Your task to perform on an android device: turn off translation in the chrome app Image 0: 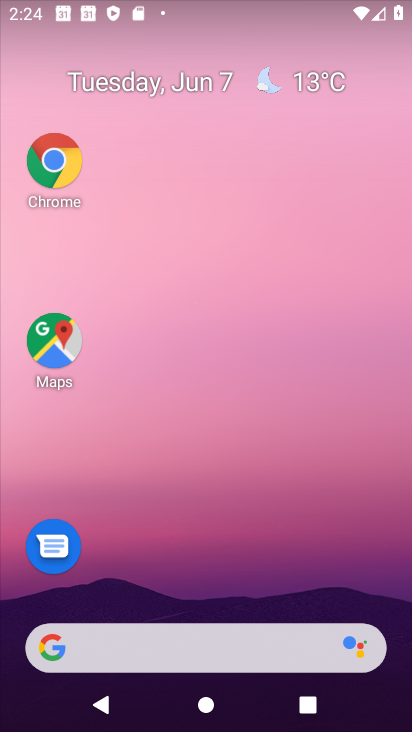
Step 0: drag from (408, 558) to (386, 2)
Your task to perform on an android device: turn off translation in the chrome app Image 1: 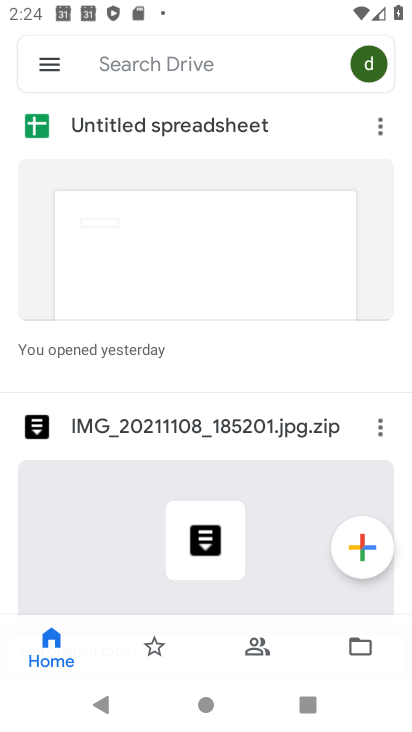
Step 1: drag from (164, 481) to (280, 2)
Your task to perform on an android device: turn off translation in the chrome app Image 2: 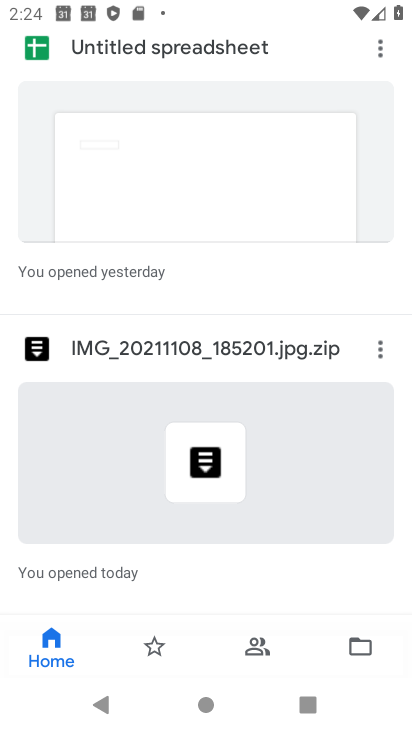
Step 2: drag from (232, 282) to (381, 494)
Your task to perform on an android device: turn off translation in the chrome app Image 3: 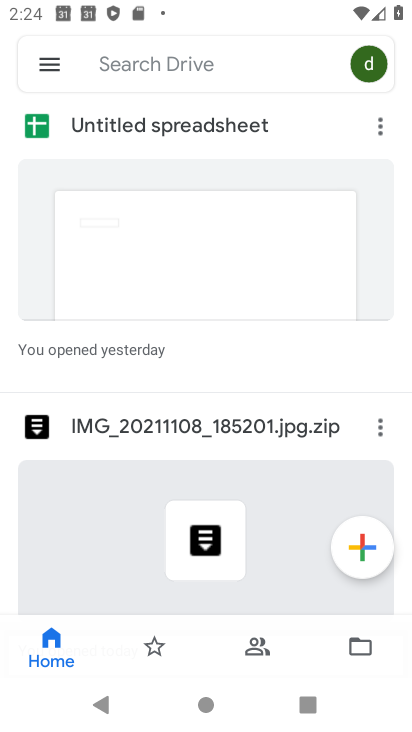
Step 3: press home button
Your task to perform on an android device: turn off translation in the chrome app Image 4: 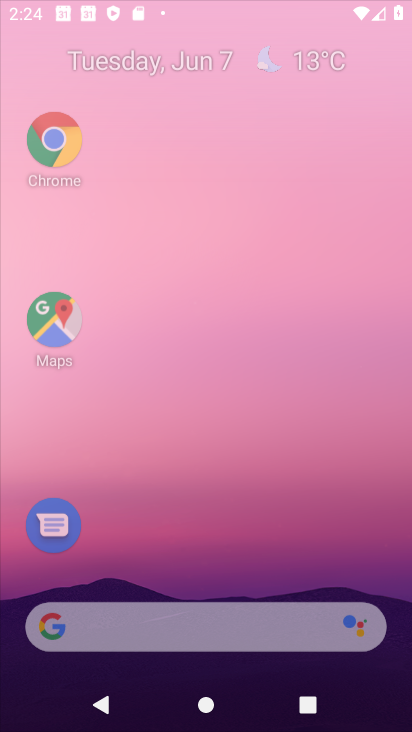
Step 4: drag from (240, 420) to (285, 36)
Your task to perform on an android device: turn off translation in the chrome app Image 5: 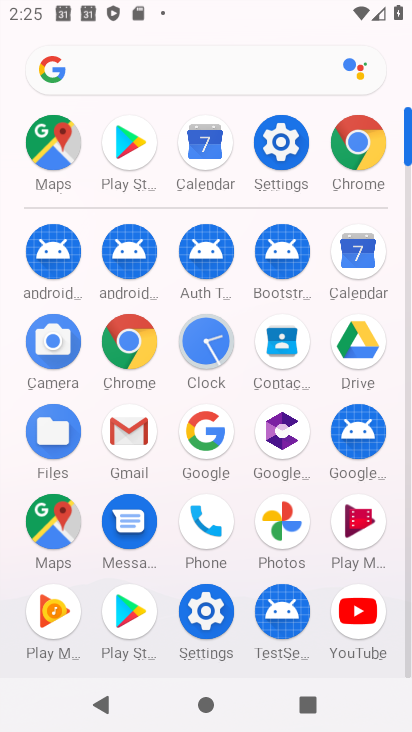
Step 5: click (118, 340)
Your task to perform on an android device: turn off translation in the chrome app Image 6: 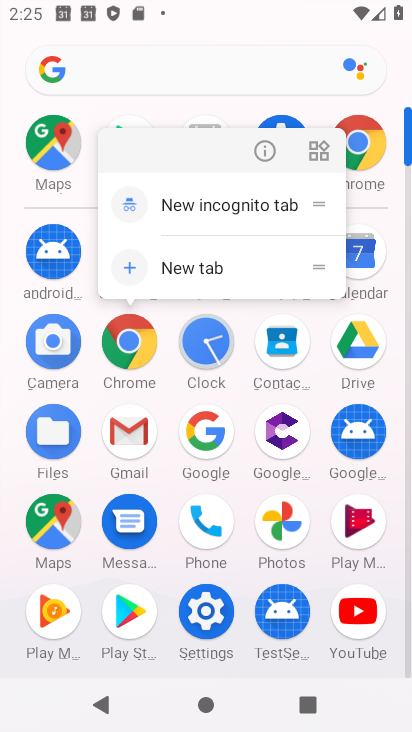
Step 6: click (264, 149)
Your task to perform on an android device: turn off translation in the chrome app Image 7: 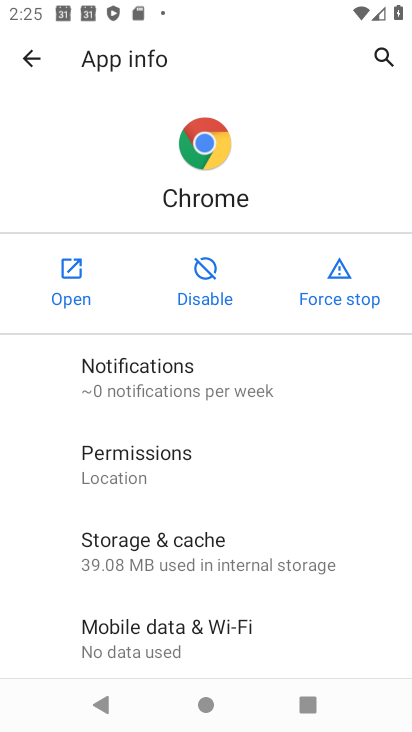
Step 7: click (64, 282)
Your task to perform on an android device: turn off translation in the chrome app Image 8: 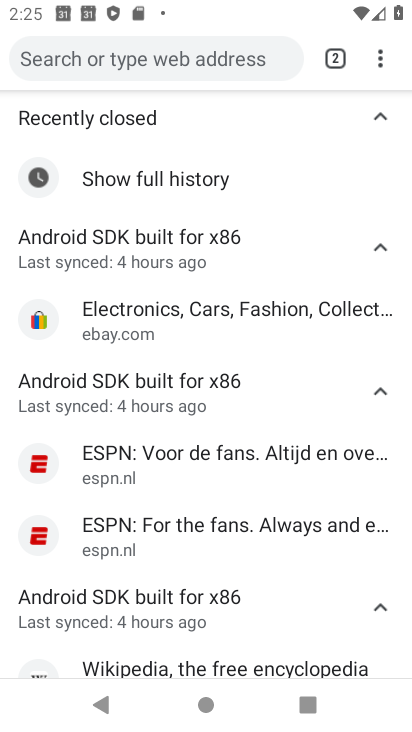
Step 8: drag from (157, 527) to (158, 96)
Your task to perform on an android device: turn off translation in the chrome app Image 9: 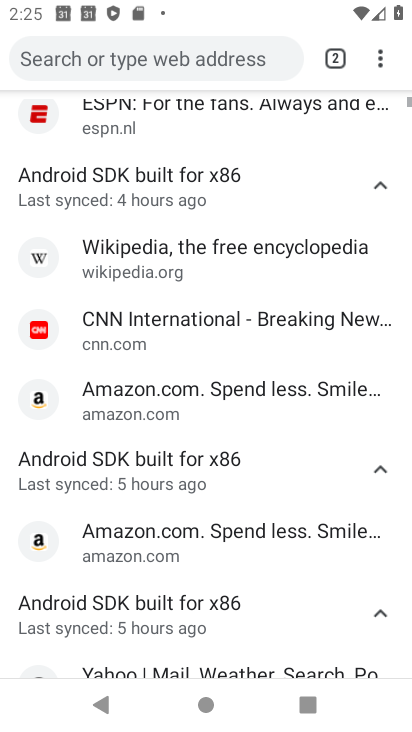
Step 9: drag from (192, 292) to (340, 713)
Your task to perform on an android device: turn off translation in the chrome app Image 10: 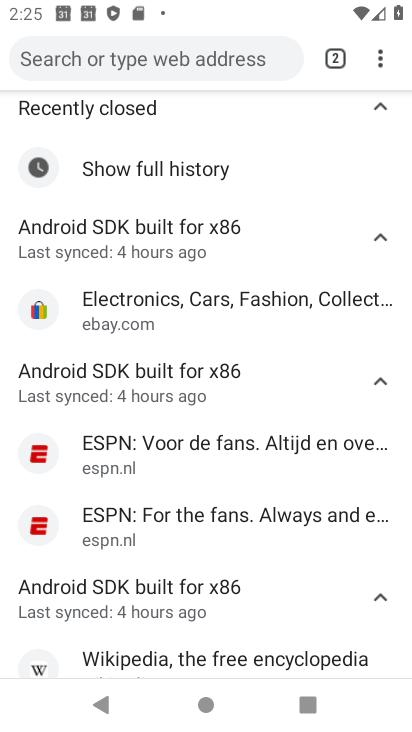
Step 10: drag from (373, 61) to (193, 479)
Your task to perform on an android device: turn off translation in the chrome app Image 11: 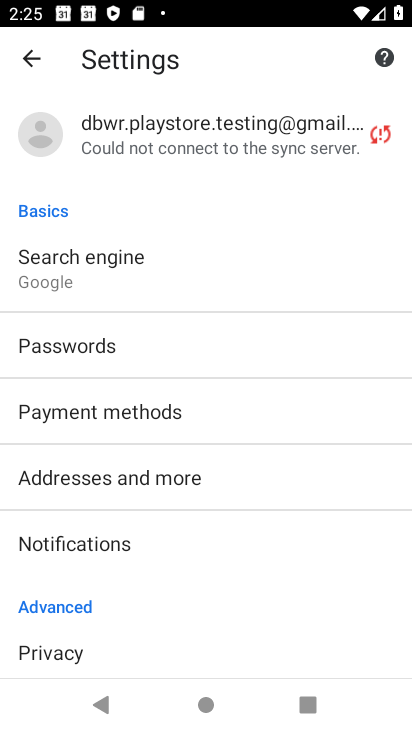
Step 11: drag from (161, 587) to (216, 21)
Your task to perform on an android device: turn off translation in the chrome app Image 12: 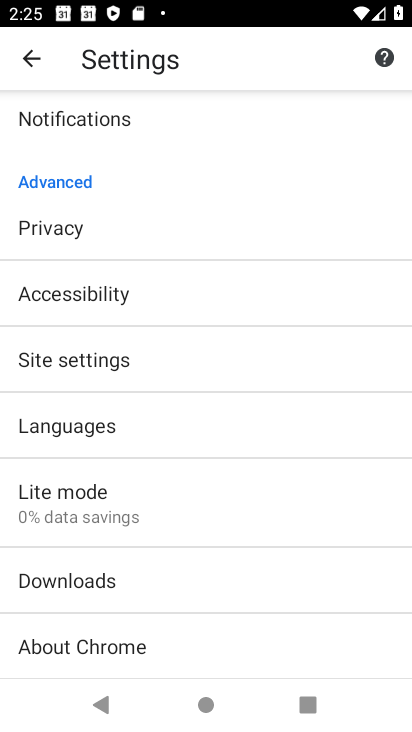
Step 12: click (93, 422)
Your task to perform on an android device: turn off translation in the chrome app Image 13: 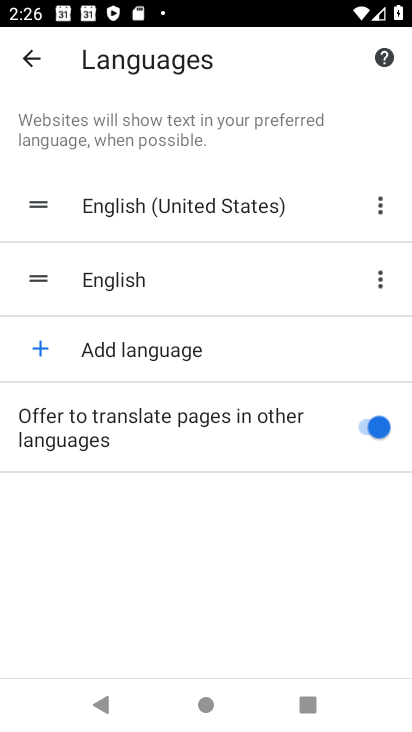
Step 13: click (357, 424)
Your task to perform on an android device: turn off translation in the chrome app Image 14: 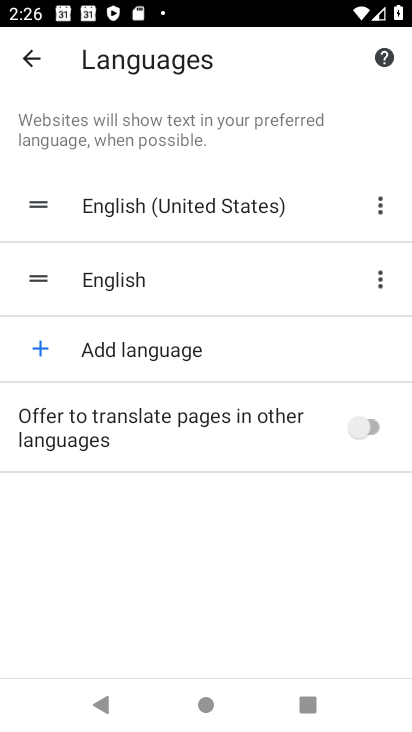
Step 14: task complete